Your task to perform on an android device: toggle notification dots Image 0: 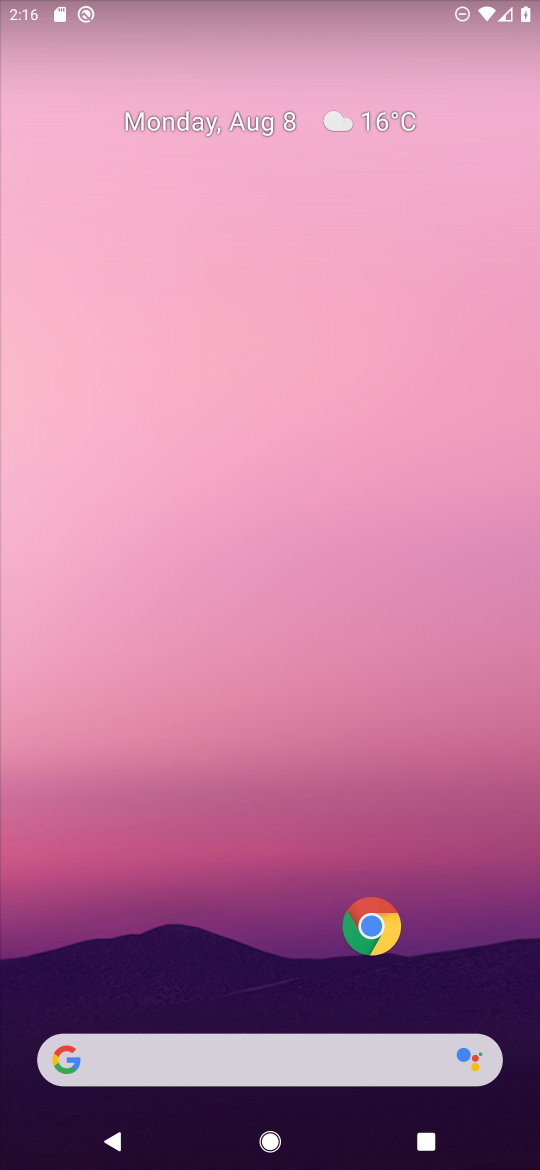
Step 0: drag from (205, 969) to (201, 371)
Your task to perform on an android device: toggle notification dots Image 1: 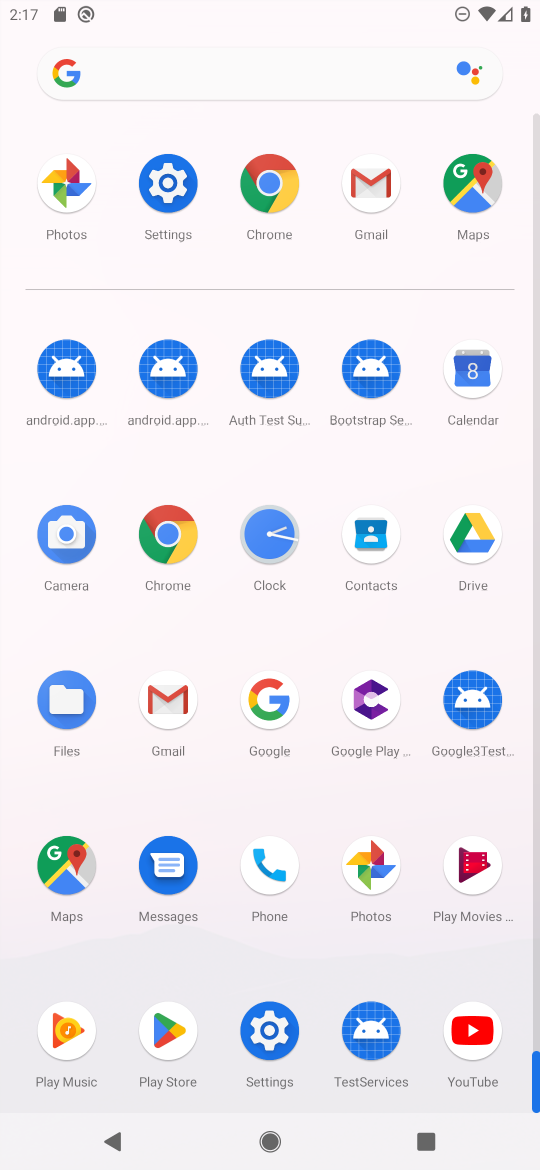
Step 1: click (160, 184)
Your task to perform on an android device: toggle notification dots Image 2: 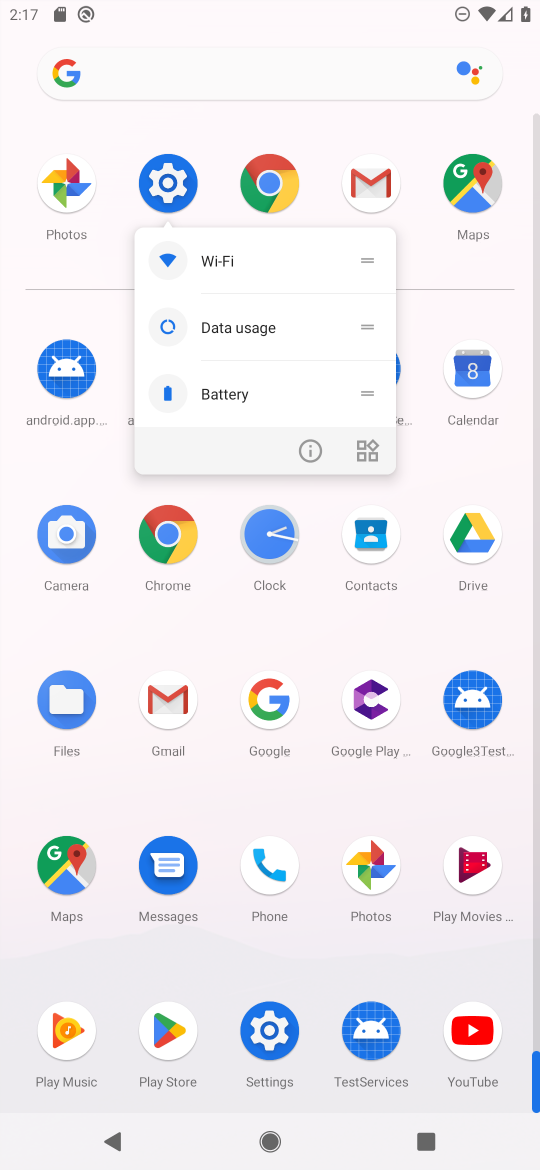
Step 2: click (160, 184)
Your task to perform on an android device: toggle notification dots Image 3: 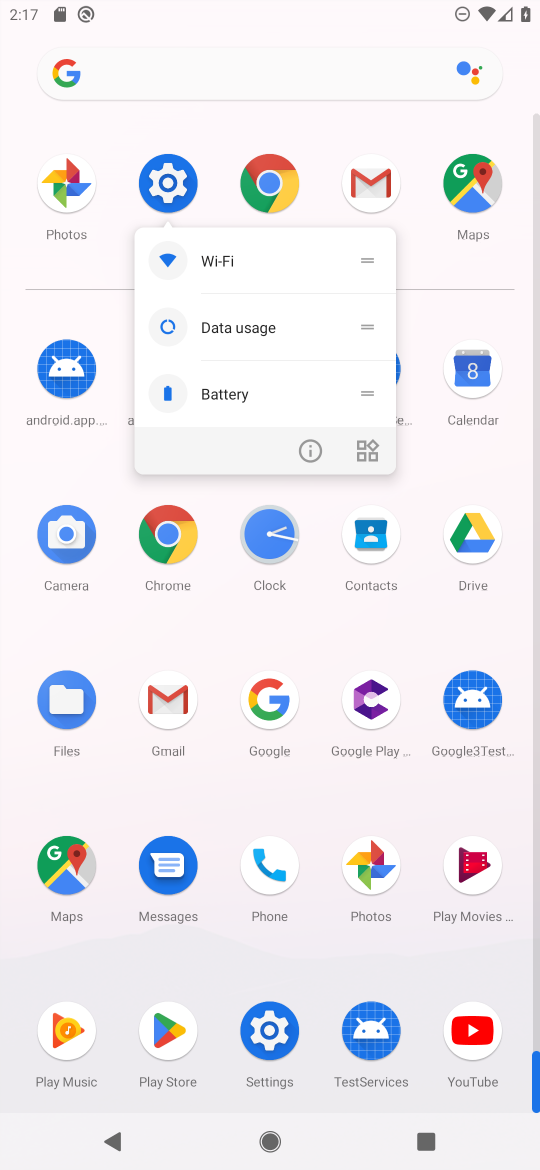
Step 3: click (160, 166)
Your task to perform on an android device: toggle notification dots Image 4: 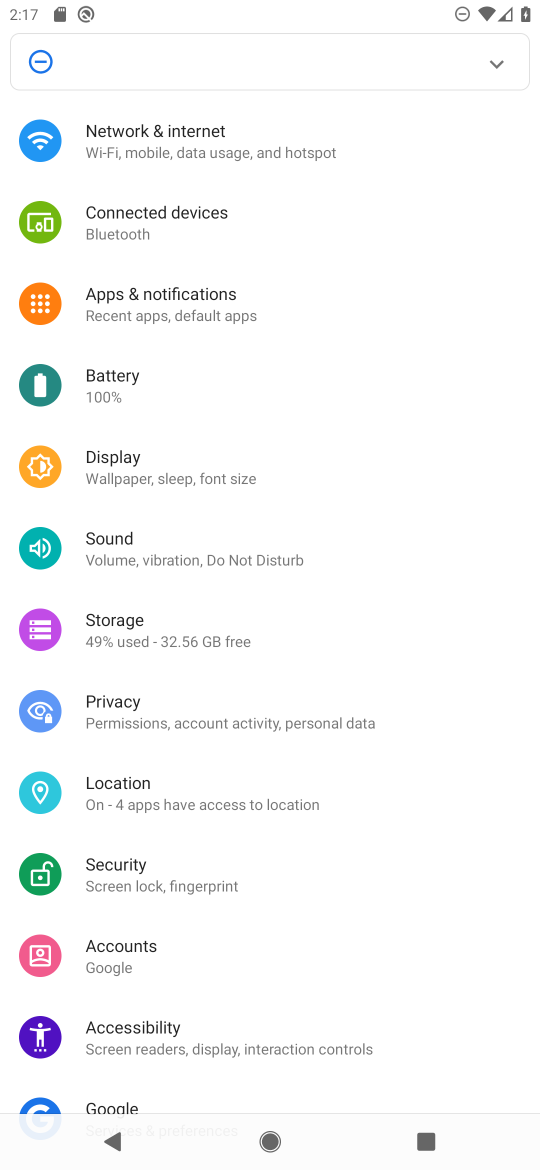
Step 4: drag from (169, 190) to (175, 1000)
Your task to perform on an android device: toggle notification dots Image 5: 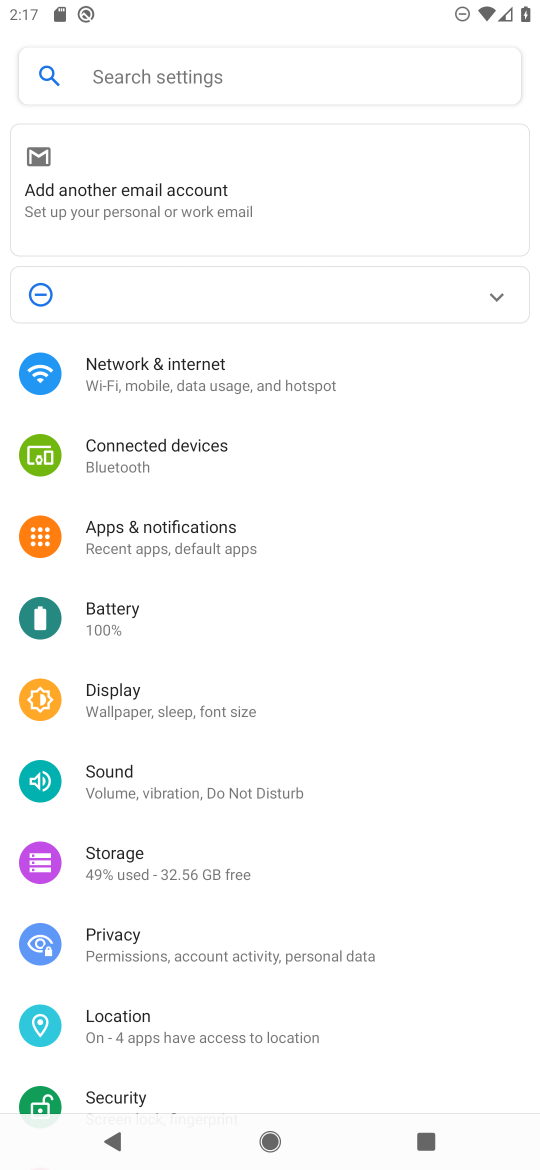
Step 5: click (214, 75)
Your task to perform on an android device: toggle notification dots Image 6: 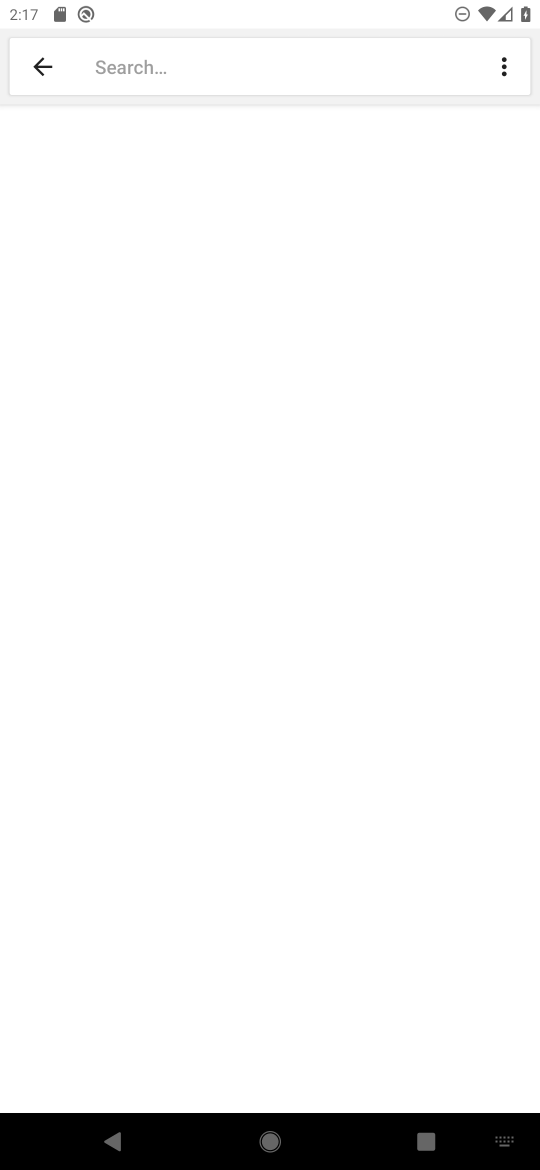
Step 6: click (222, 61)
Your task to perform on an android device: toggle notification dots Image 7: 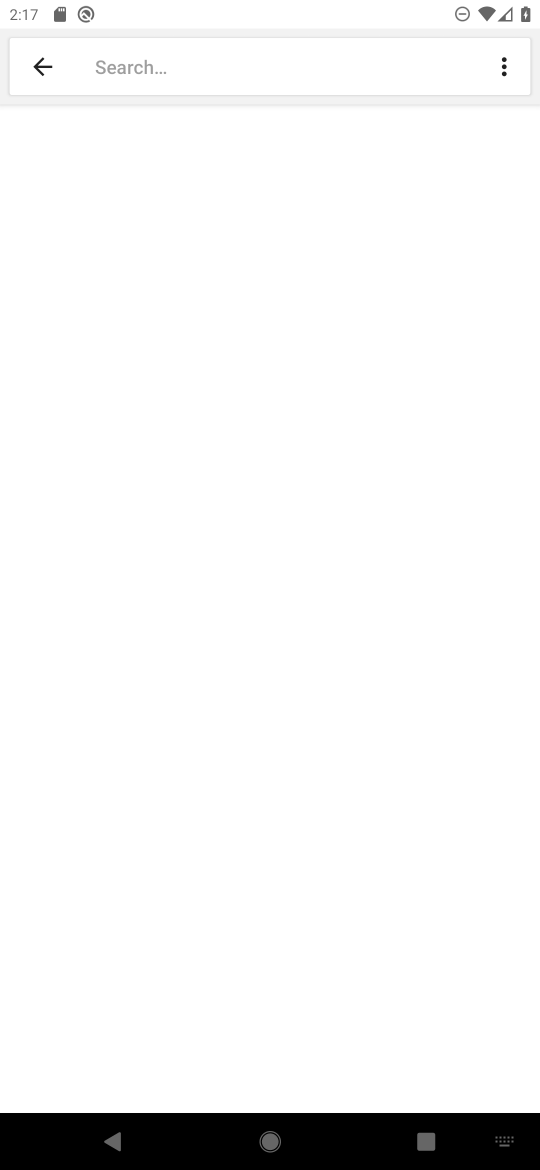
Step 7: type "What's the weather? "
Your task to perform on an android device: toggle notification dots Image 8: 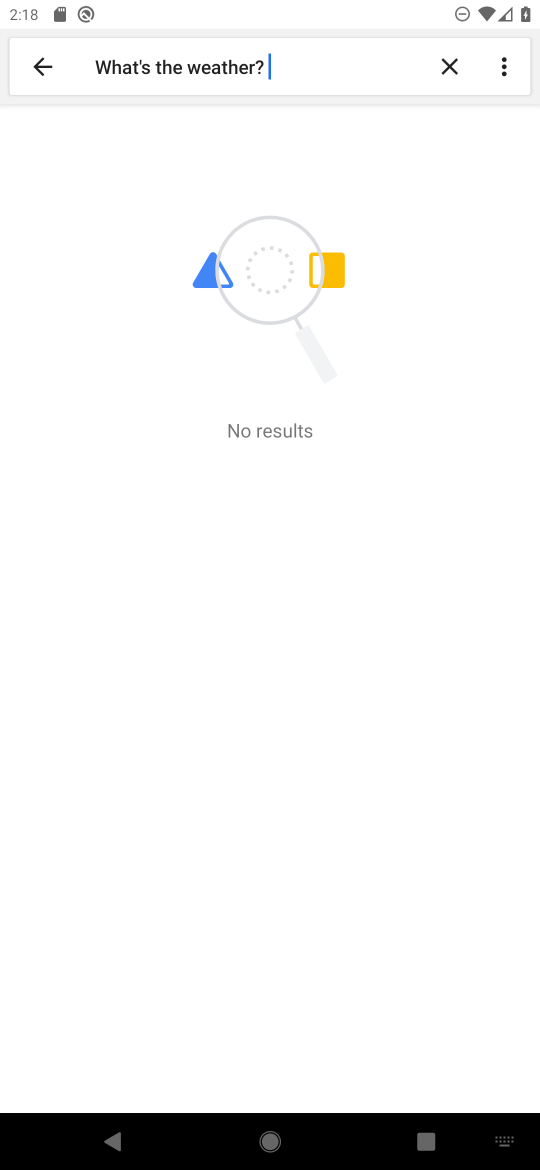
Step 8: click (449, 46)
Your task to perform on an android device: toggle notification dots Image 9: 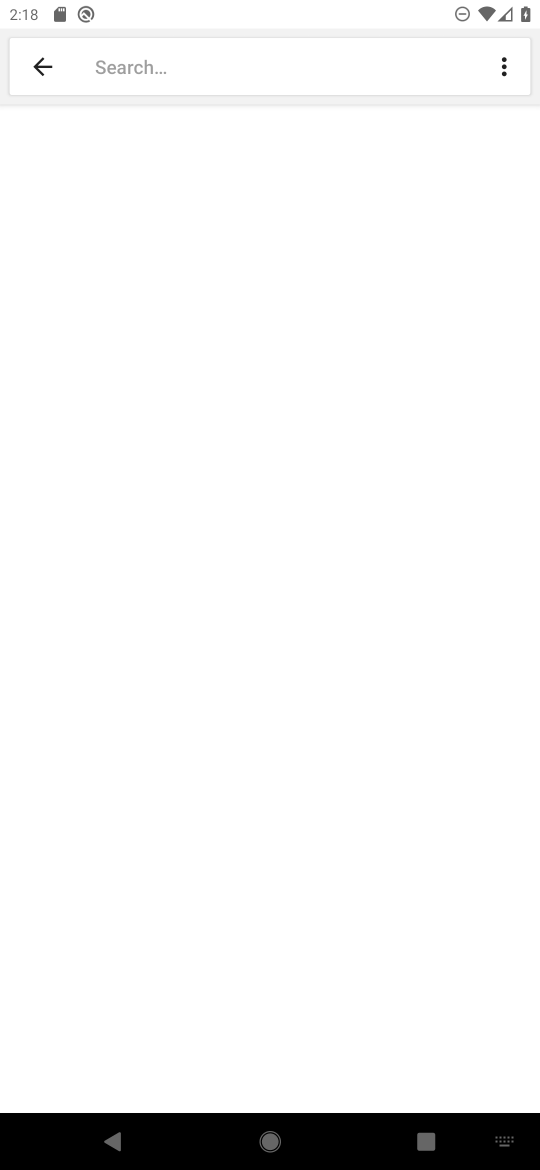
Step 9: click (292, 73)
Your task to perform on an android device: toggle notification dots Image 10: 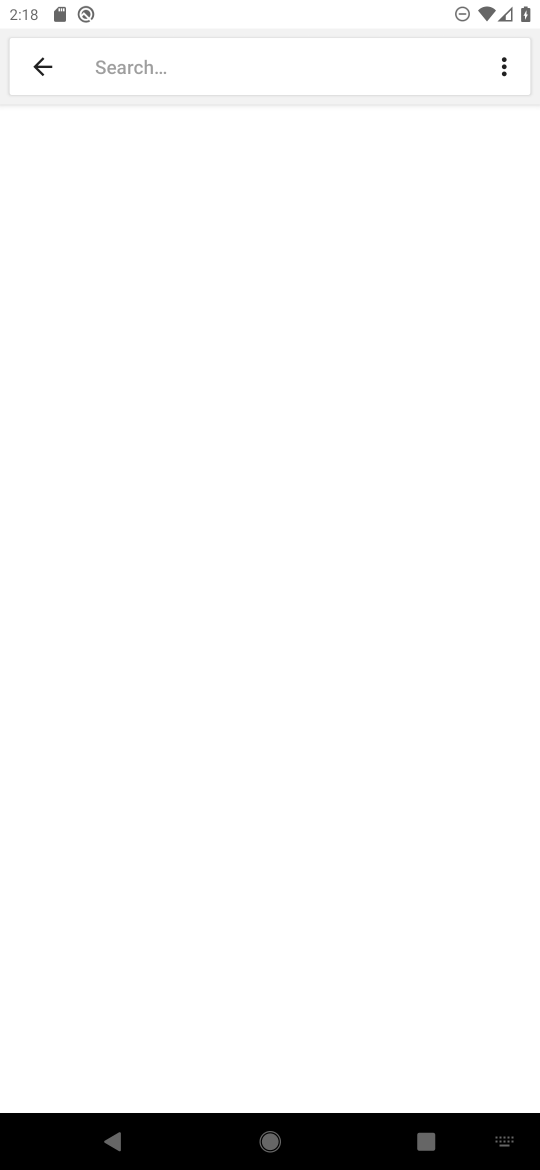
Step 10: type " notification dots "
Your task to perform on an android device: toggle notification dots Image 11: 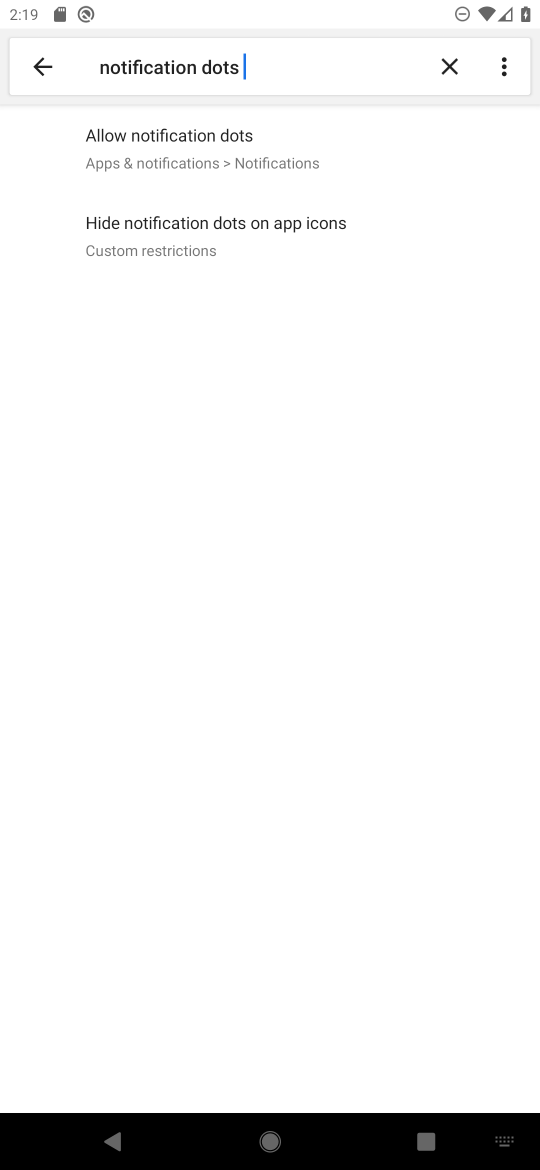
Step 11: click (213, 163)
Your task to perform on an android device: toggle notification dots Image 12: 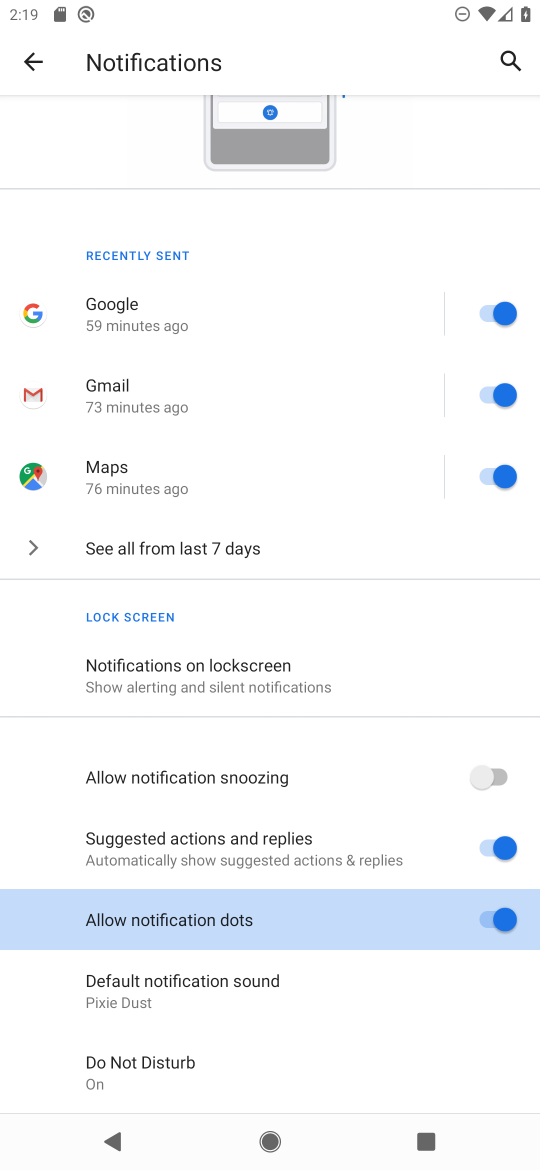
Step 12: click (496, 916)
Your task to perform on an android device: toggle notification dots Image 13: 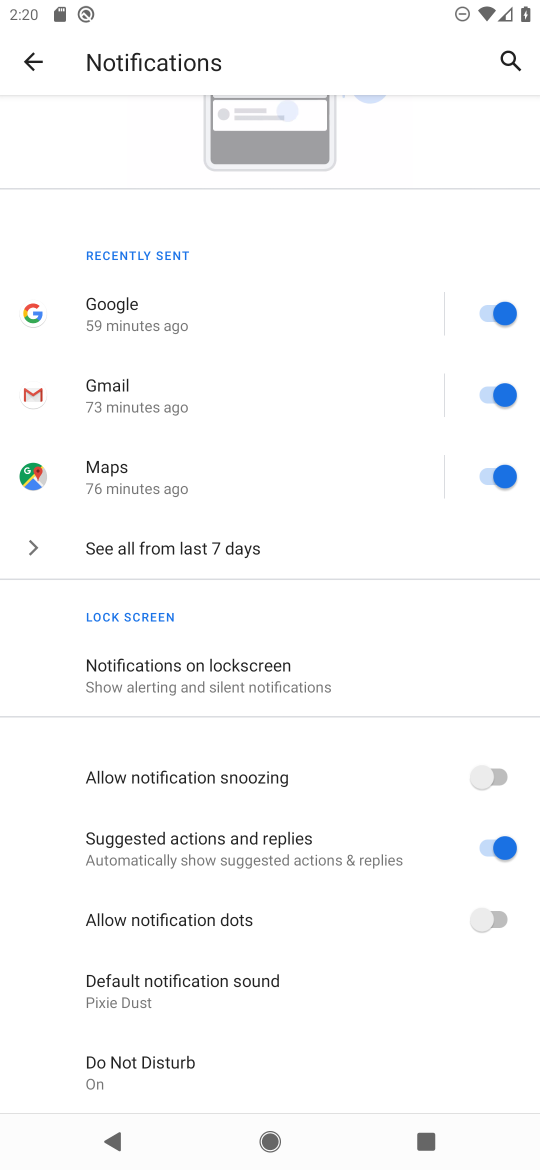
Step 13: task complete